Your task to perform on an android device: Show me popular games on the Play Store Image 0: 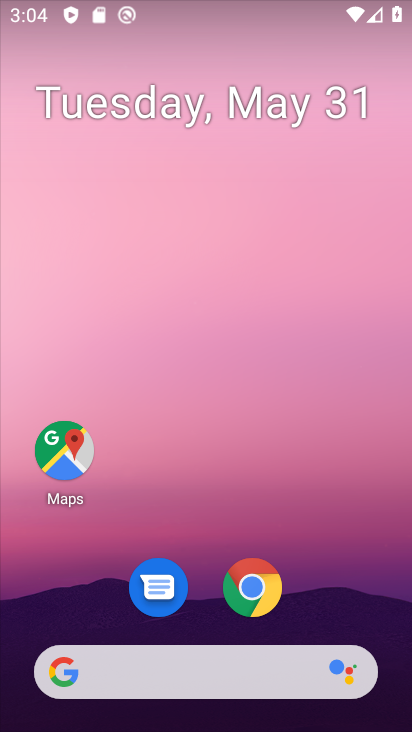
Step 0: drag from (321, 617) to (316, 29)
Your task to perform on an android device: Show me popular games on the Play Store Image 1: 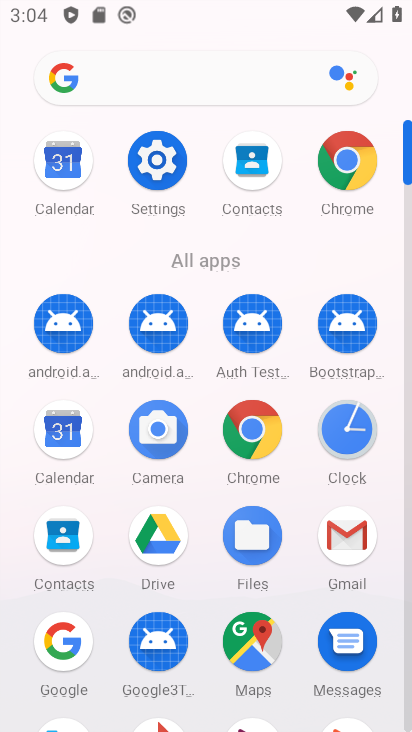
Step 1: drag from (200, 605) to (265, 140)
Your task to perform on an android device: Show me popular games on the Play Store Image 2: 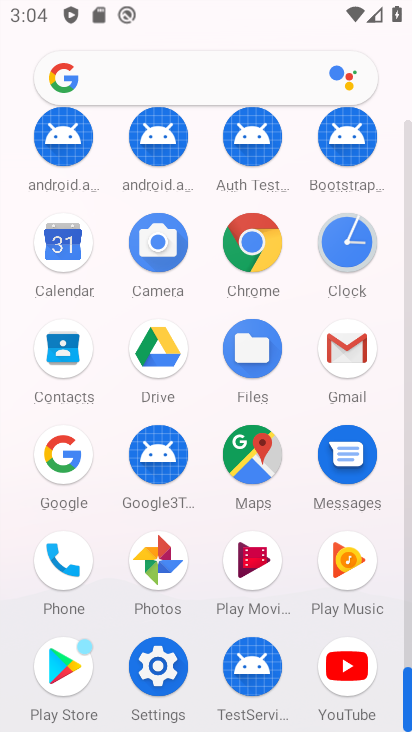
Step 2: click (58, 675)
Your task to perform on an android device: Show me popular games on the Play Store Image 3: 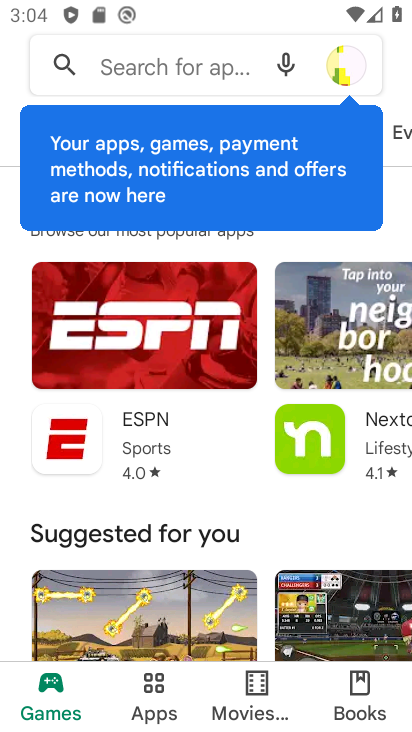
Step 3: click (71, 706)
Your task to perform on an android device: Show me popular games on the Play Store Image 4: 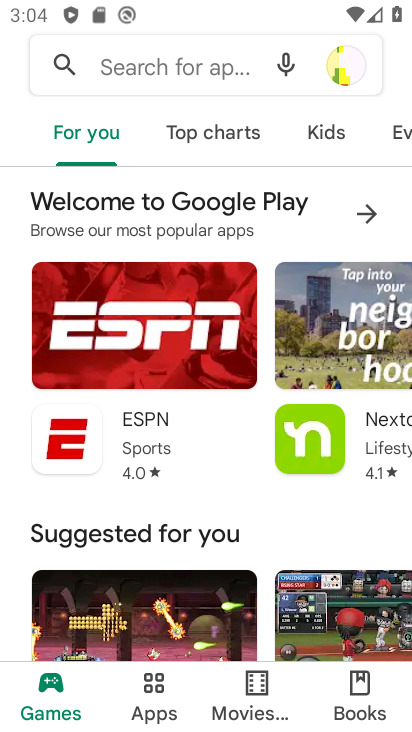
Step 4: click (214, 131)
Your task to perform on an android device: Show me popular games on the Play Store Image 5: 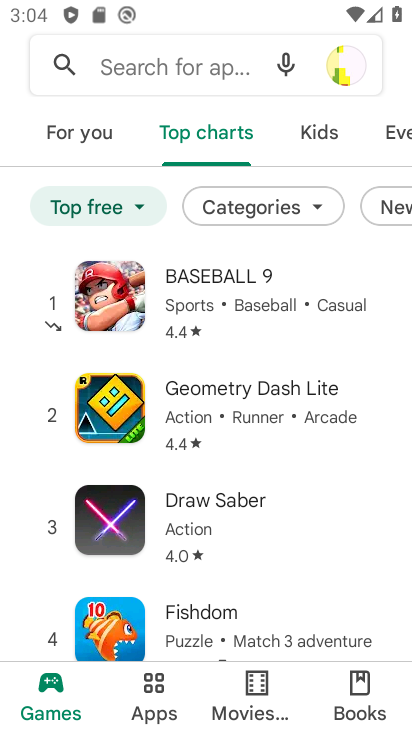
Step 5: task complete